Your task to perform on an android device: toggle show notifications on the lock screen Image 0: 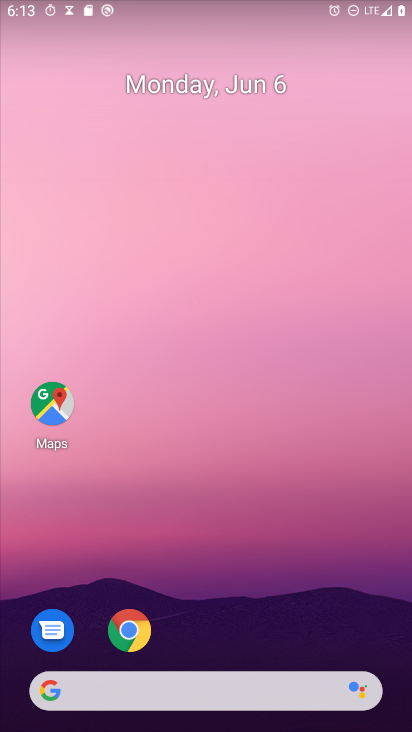
Step 0: drag from (296, 631) to (169, 0)
Your task to perform on an android device: toggle show notifications on the lock screen Image 1: 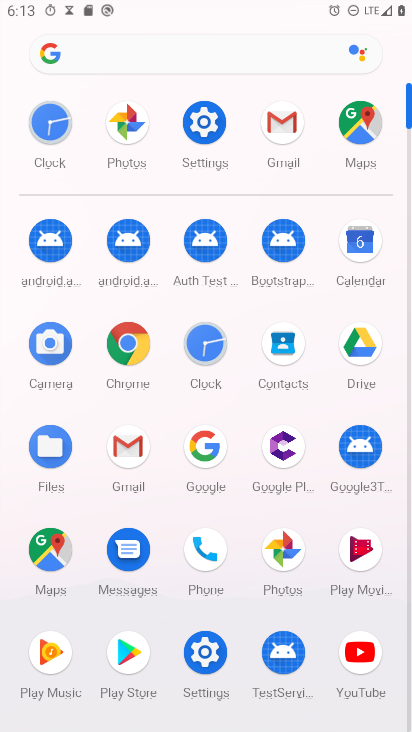
Step 1: click (185, 121)
Your task to perform on an android device: toggle show notifications on the lock screen Image 2: 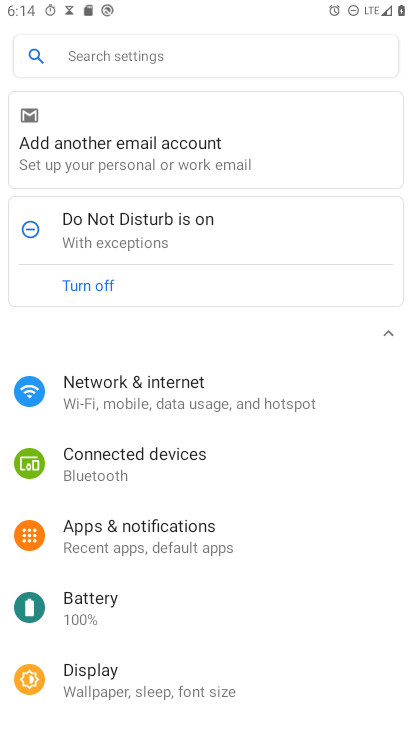
Step 2: click (189, 534)
Your task to perform on an android device: toggle show notifications on the lock screen Image 3: 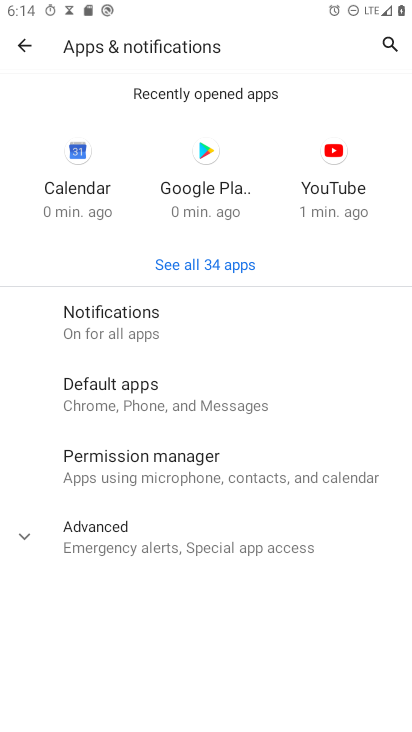
Step 3: click (152, 321)
Your task to perform on an android device: toggle show notifications on the lock screen Image 4: 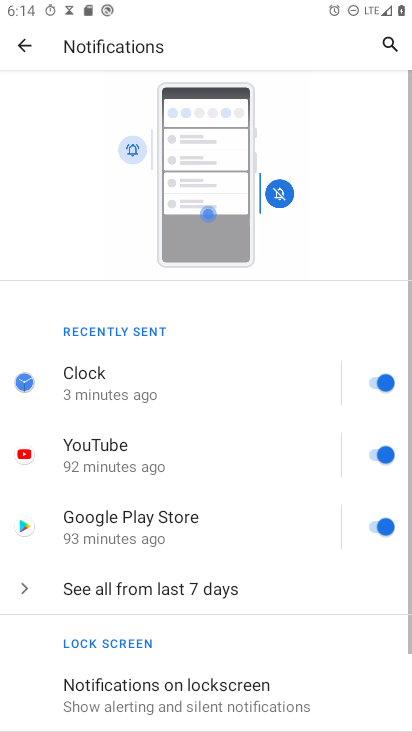
Step 4: click (200, 711)
Your task to perform on an android device: toggle show notifications on the lock screen Image 5: 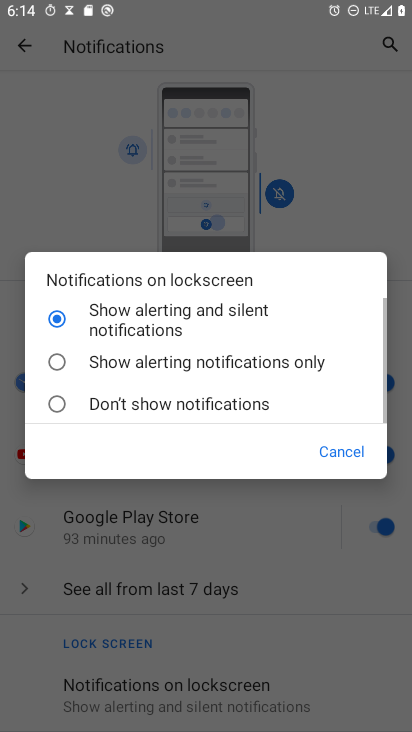
Step 5: click (80, 404)
Your task to perform on an android device: toggle show notifications on the lock screen Image 6: 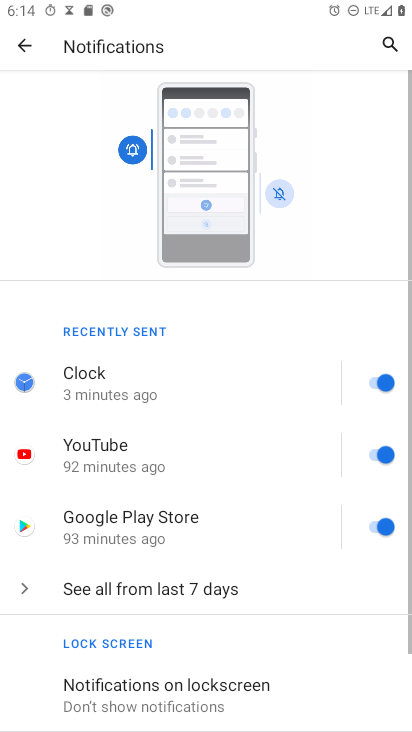
Step 6: task complete